Your task to perform on an android device: Clear the cart on bestbuy. Add "lenovo thinkpad" to the cart on bestbuy, then select checkout. Image 0: 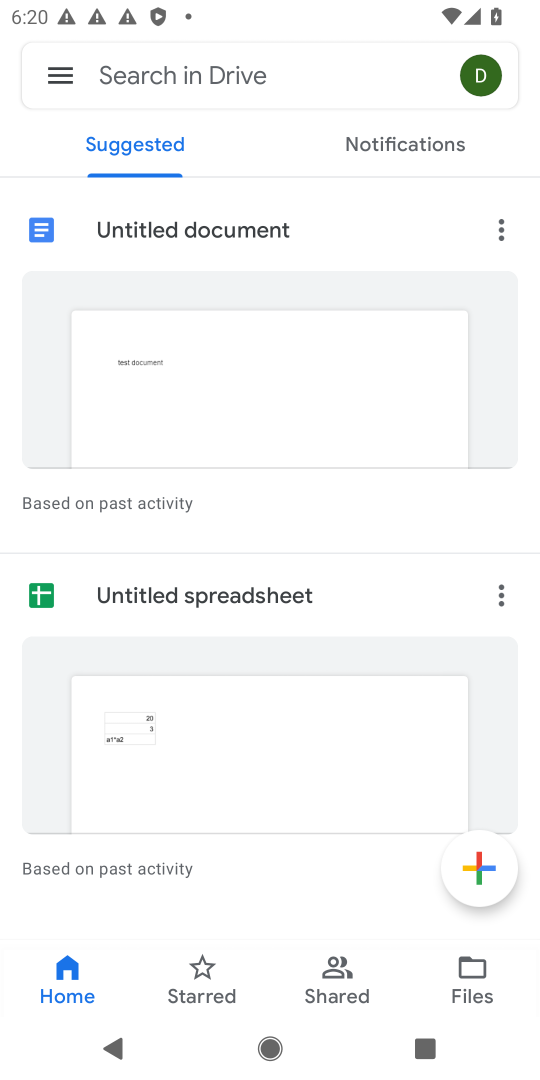
Step 0: task complete